Your task to perform on an android device: Find coffee shops on Maps Image 0: 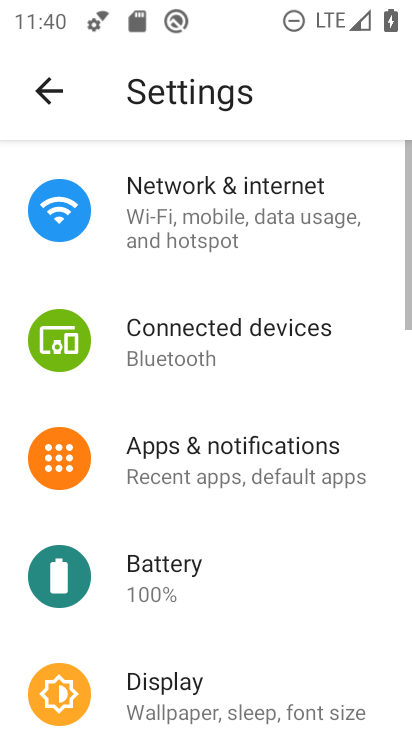
Step 0: press home button
Your task to perform on an android device: Find coffee shops on Maps Image 1: 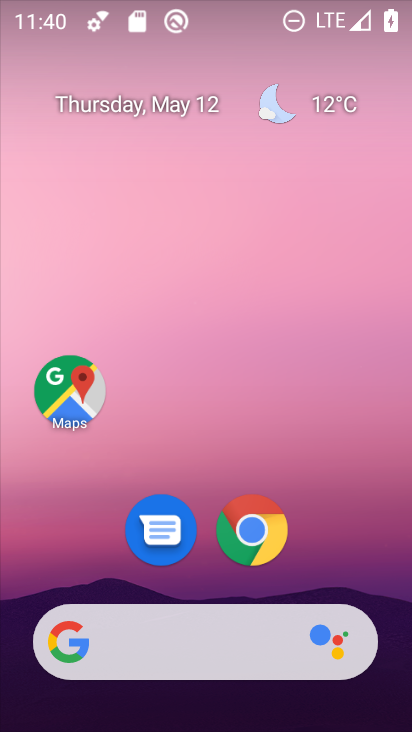
Step 1: click (67, 392)
Your task to perform on an android device: Find coffee shops on Maps Image 2: 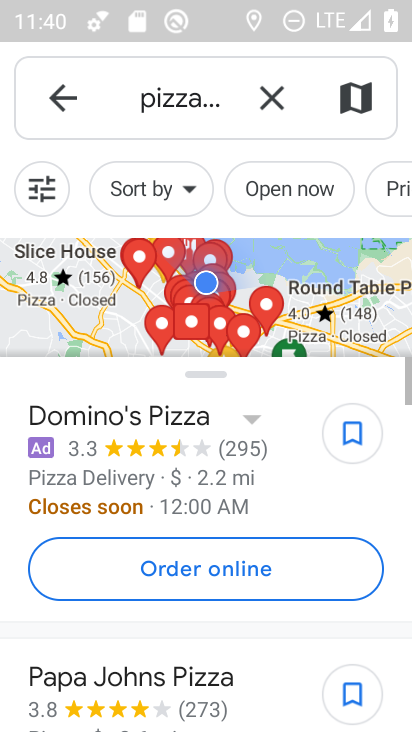
Step 2: click (269, 96)
Your task to perform on an android device: Find coffee shops on Maps Image 3: 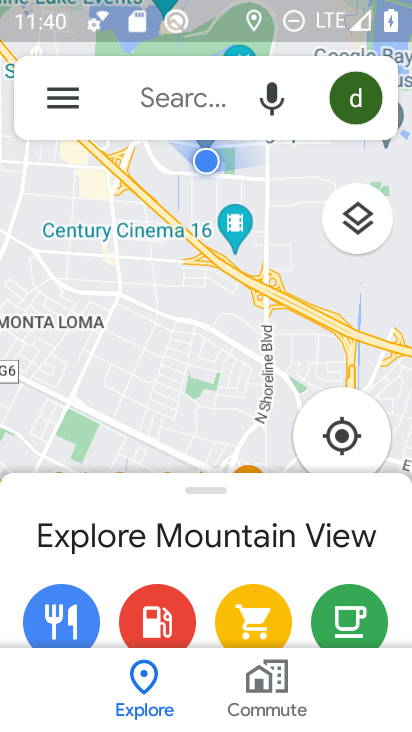
Step 3: click (190, 99)
Your task to perform on an android device: Find coffee shops on Maps Image 4: 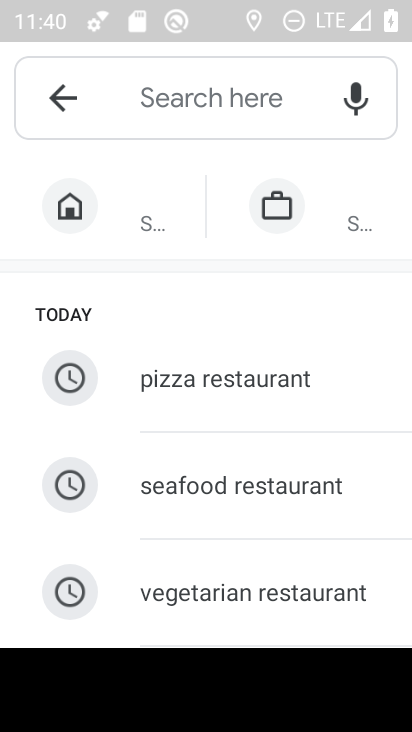
Step 4: drag from (229, 541) to (250, 315)
Your task to perform on an android device: Find coffee shops on Maps Image 5: 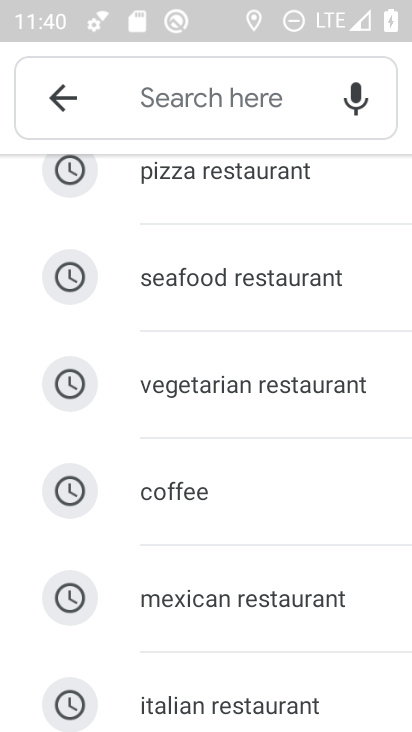
Step 5: click (180, 487)
Your task to perform on an android device: Find coffee shops on Maps Image 6: 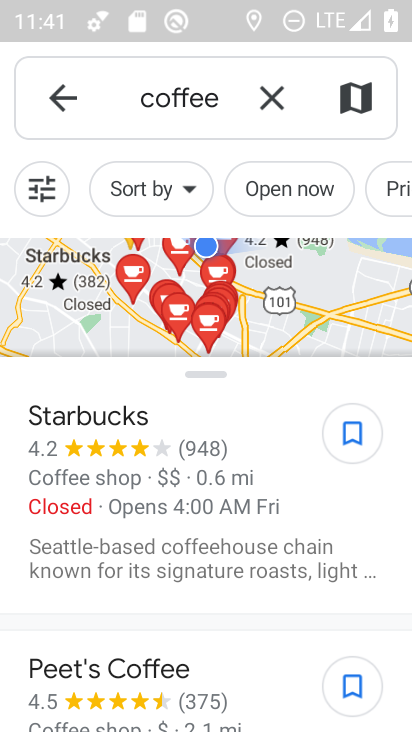
Step 6: task complete